Your task to perform on an android device: toggle notification dots Image 0: 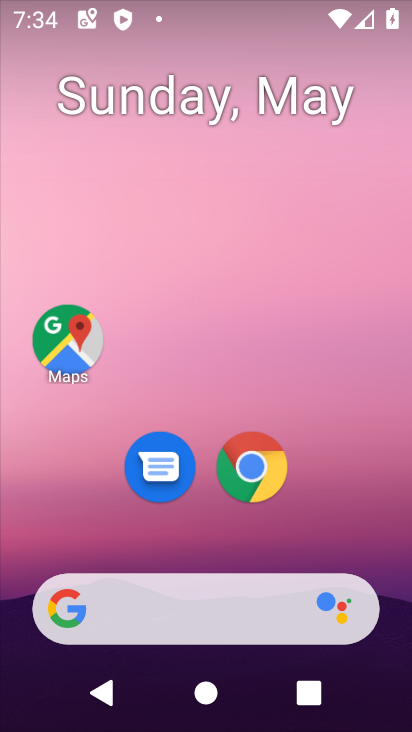
Step 0: press home button
Your task to perform on an android device: toggle notification dots Image 1: 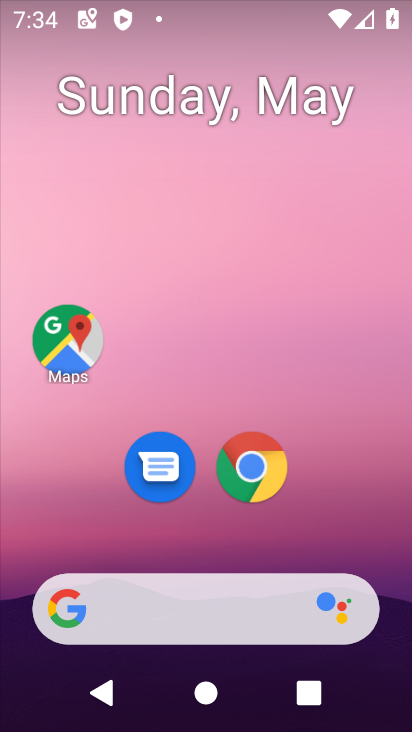
Step 1: drag from (18, 638) to (293, 55)
Your task to perform on an android device: toggle notification dots Image 2: 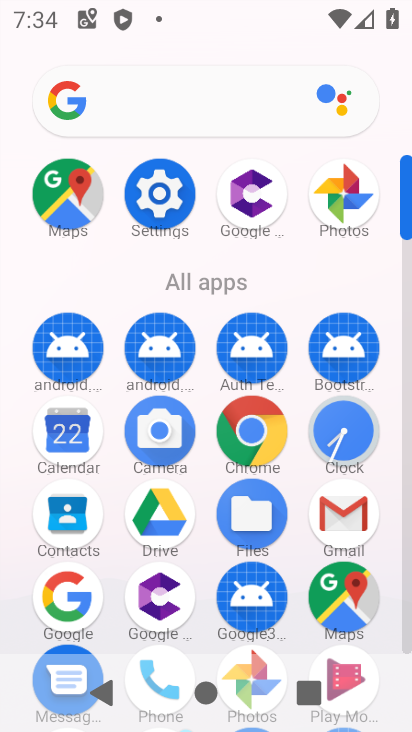
Step 2: drag from (29, 542) to (221, 178)
Your task to perform on an android device: toggle notification dots Image 3: 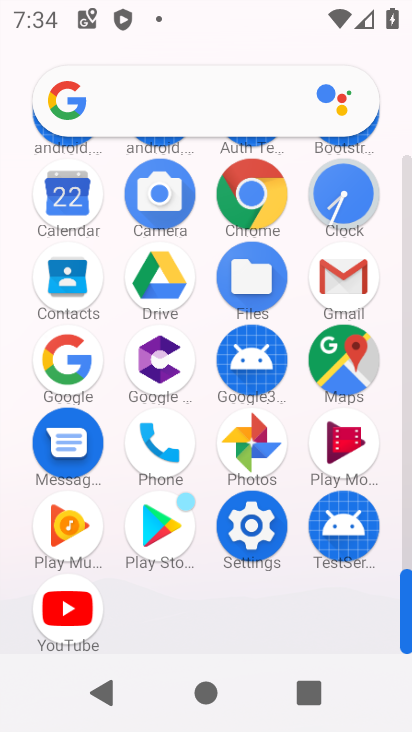
Step 3: click (246, 522)
Your task to perform on an android device: toggle notification dots Image 4: 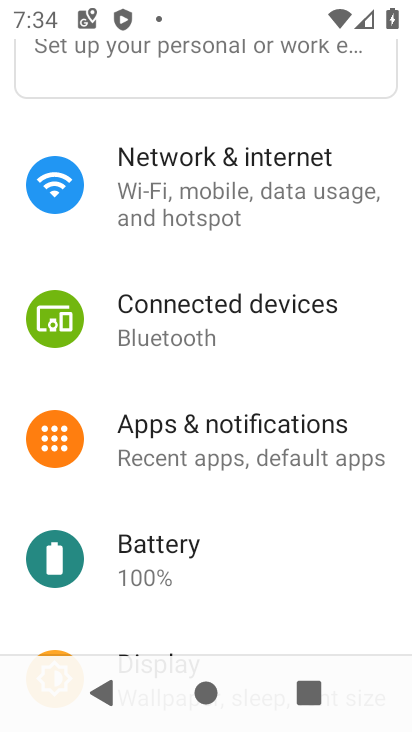
Step 4: click (184, 446)
Your task to perform on an android device: toggle notification dots Image 5: 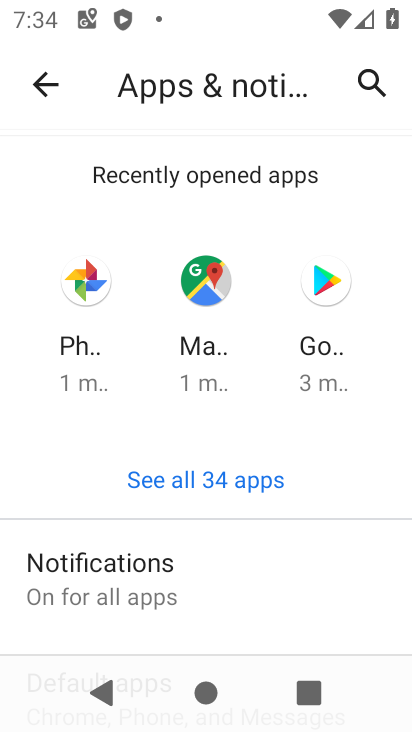
Step 5: drag from (42, 470) to (188, 147)
Your task to perform on an android device: toggle notification dots Image 6: 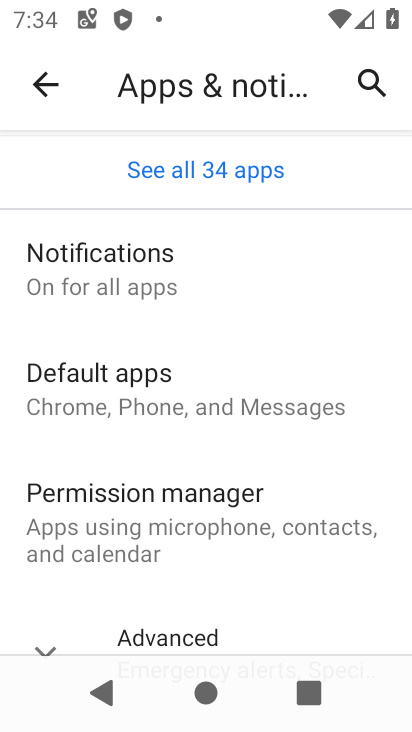
Step 6: click (111, 296)
Your task to perform on an android device: toggle notification dots Image 7: 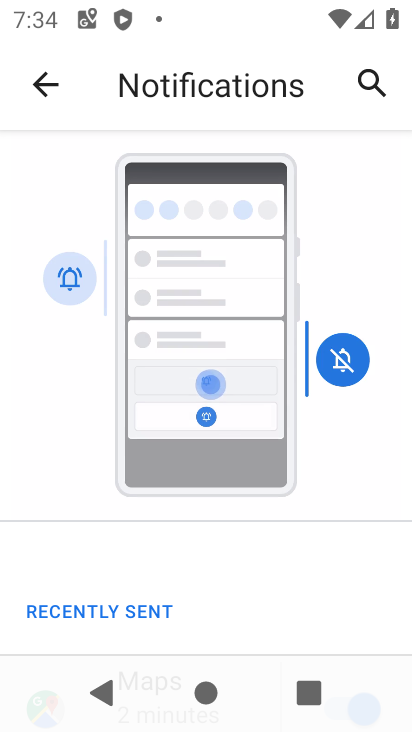
Step 7: drag from (36, 424) to (165, 160)
Your task to perform on an android device: toggle notification dots Image 8: 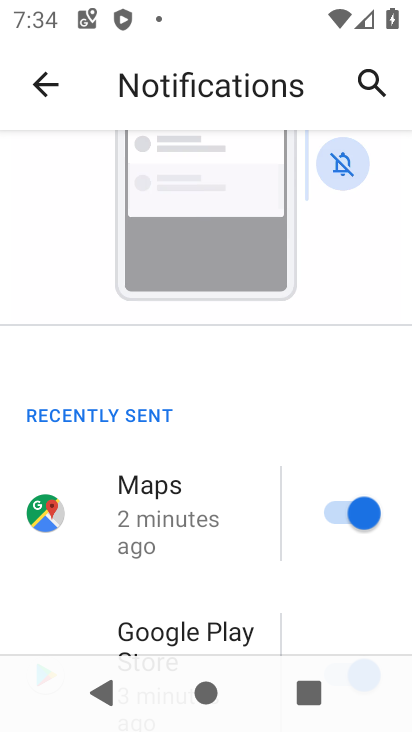
Step 8: drag from (7, 554) to (211, 47)
Your task to perform on an android device: toggle notification dots Image 9: 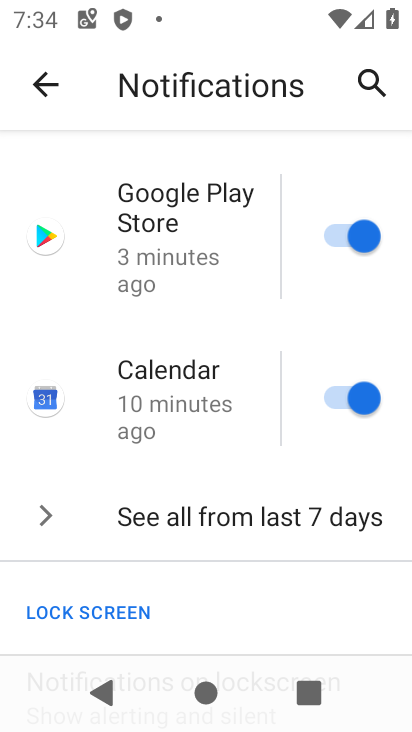
Step 9: drag from (23, 508) to (206, 131)
Your task to perform on an android device: toggle notification dots Image 10: 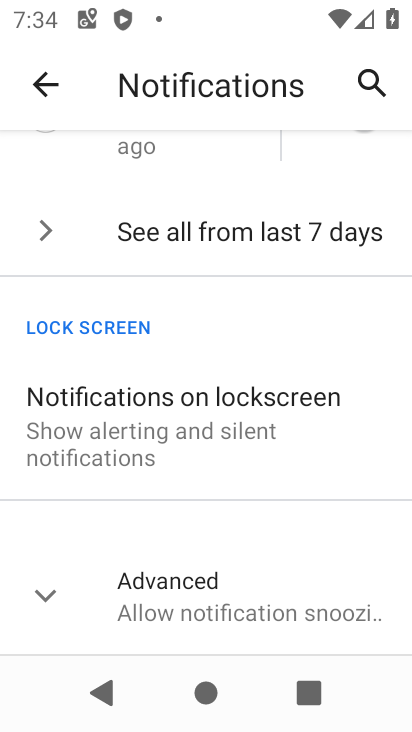
Step 10: click (80, 618)
Your task to perform on an android device: toggle notification dots Image 11: 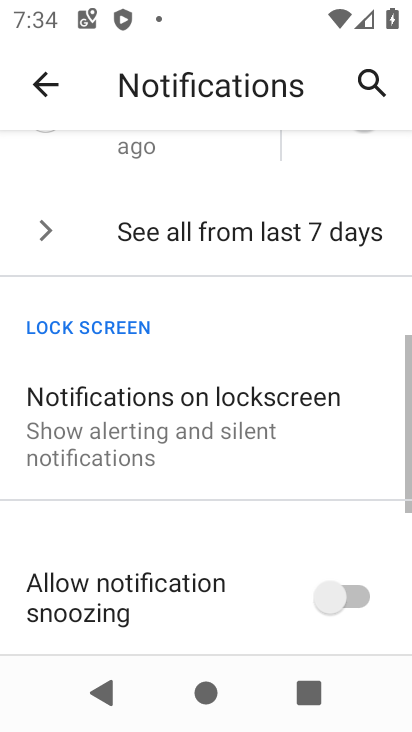
Step 11: drag from (35, 484) to (224, 138)
Your task to perform on an android device: toggle notification dots Image 12: 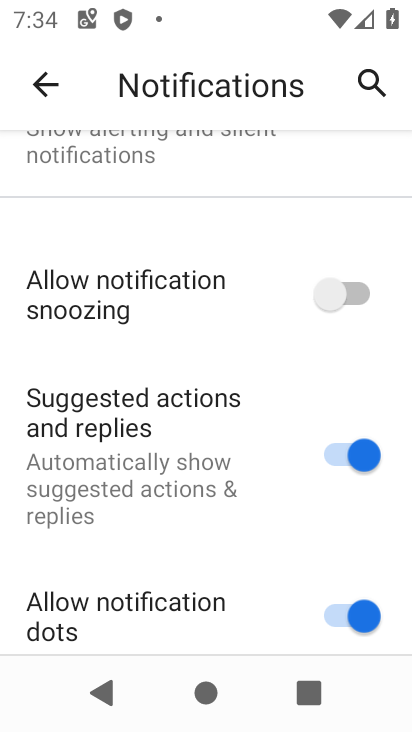
Step 12: drag from (11, 509) to (238, 219)
Your task to perform on an android device: toggle notification dots Image 13: 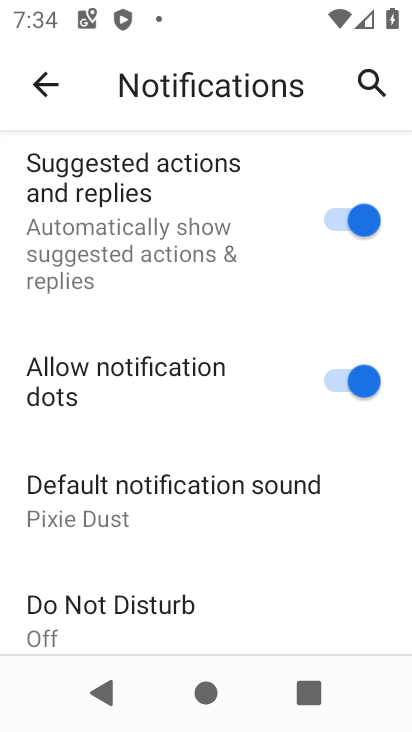
Step 13: click (372, 375)
Your task to perform on an android device: toggle notification dots Image 14: 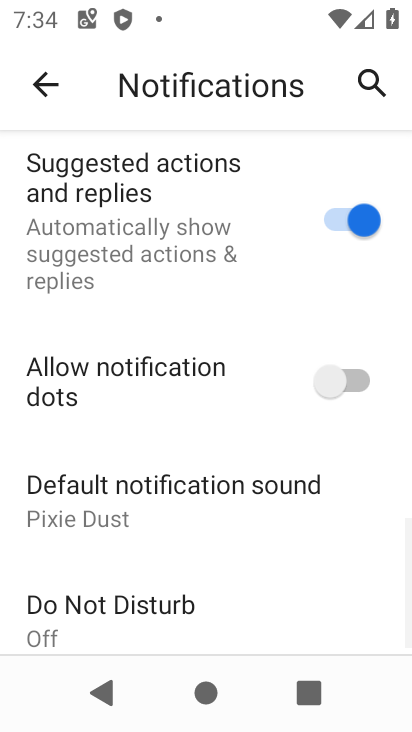
Step 14: task complete